Your task to perform on an android device: Clear all items from cart on bestbuy. Add "beats solo 3" to the cart on bestbuy, then select checkout. Image 0: 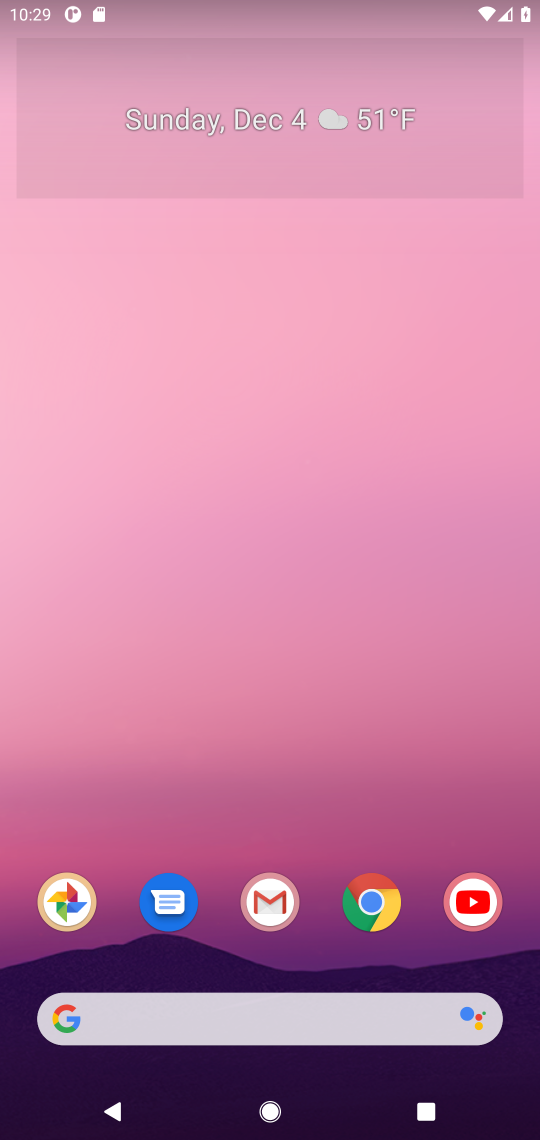
Step 0: click (365, 924)
Your task to perform on an android device: Clear all items from cart on bestbuy. Add "beats solo 3" to the cart on bestbuy, then select checkout. Image 1: 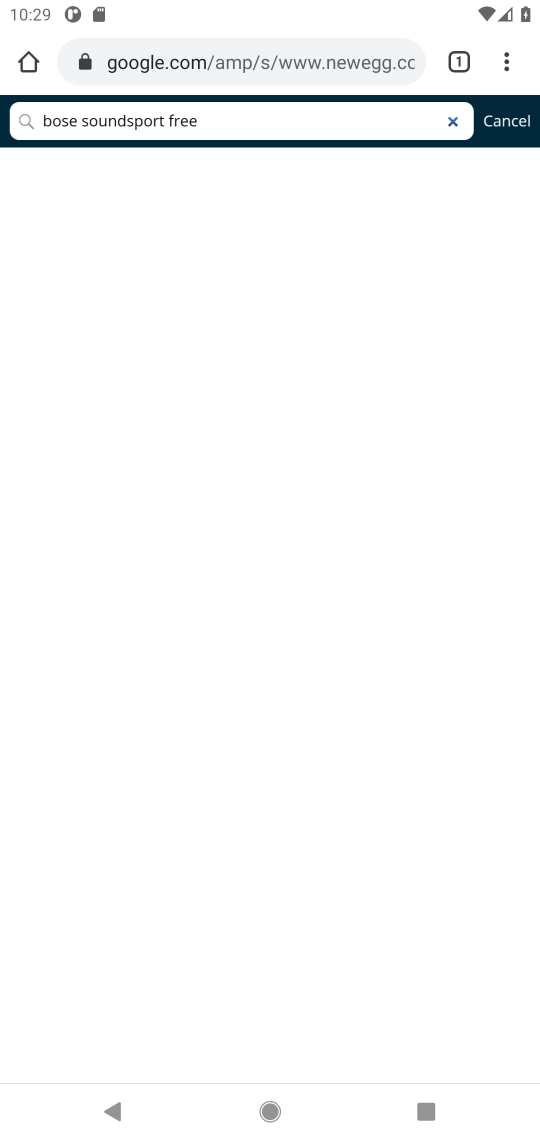
Step 1: click (313, 60)
Your task to perform on an android device: Clear all items from cart on bestbuy. Add "beats solo 3" to the cart on bestbuy, then select checkout. Image 2: 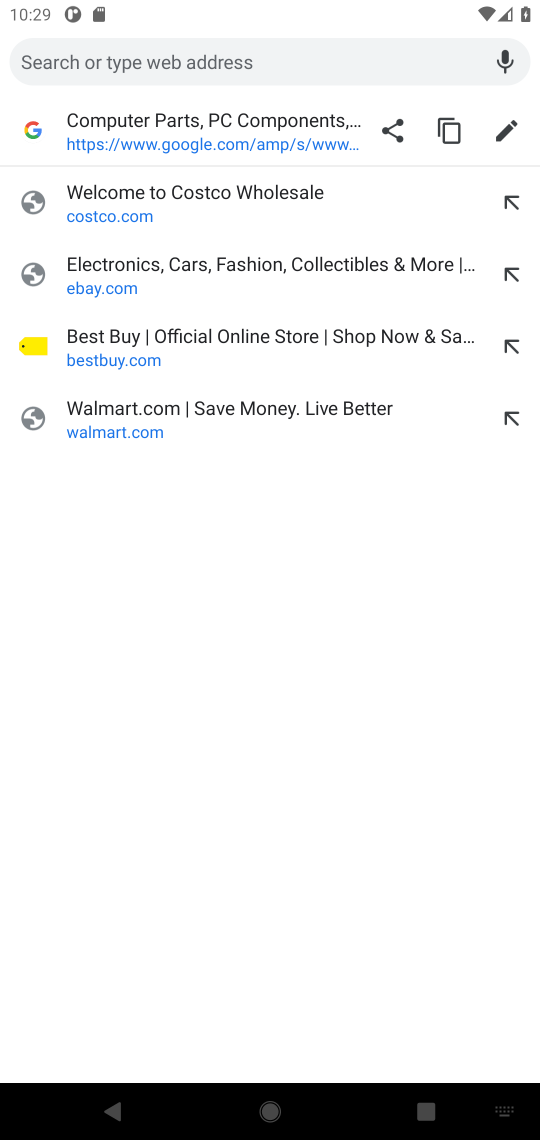
Step 2: click (203, 366)
Your task to perform on an android device: Clear all items from cart on bestbuy. Add "beats solo 3" to the cart on bestbuy, then select checkout. Image 3: 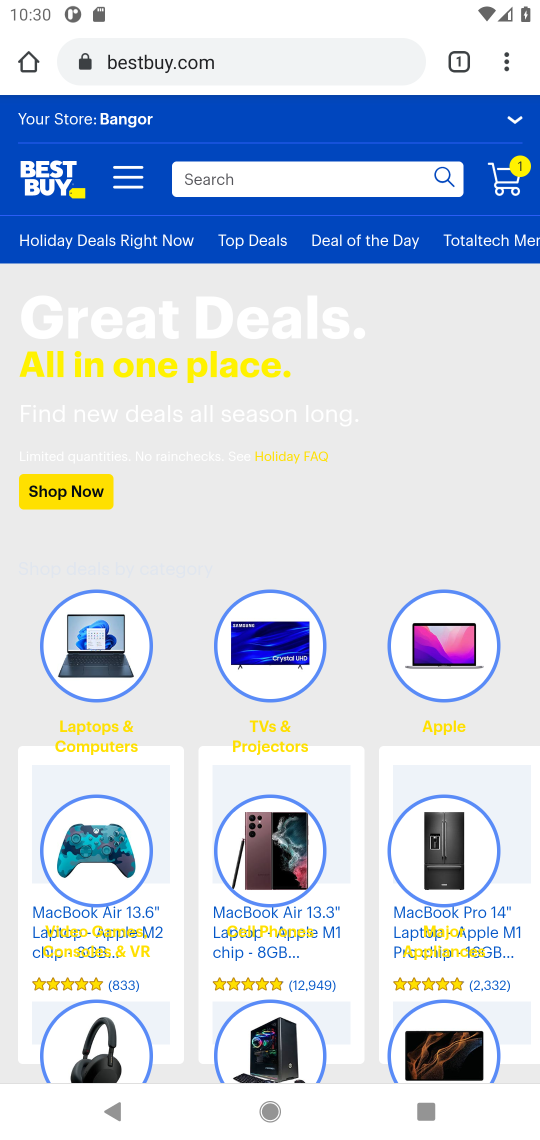
Step 3: click (499, 184)
Your task to perform on an android device: Clear all items from cart on bestbuy. Add "beats solo 3" to the cart on bestbuy, then select checkout. Image 4: 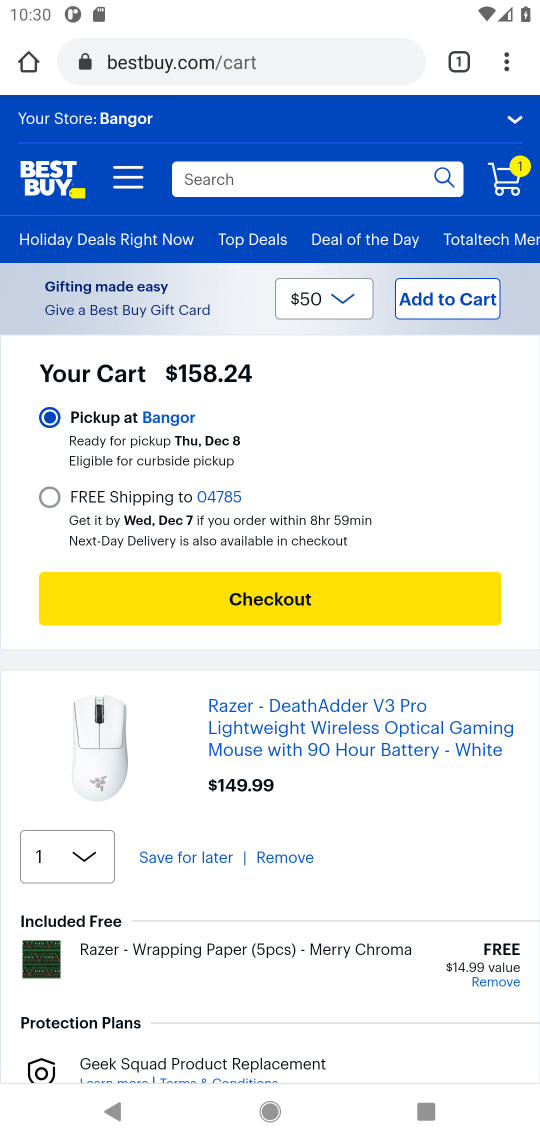
Step 4: click (286, 852)
Your task to perform on an android device: Clear all items from cart on bestbuy. Add "beats solo 3" to the cart on bestbuy, then select checkout. Image 5: 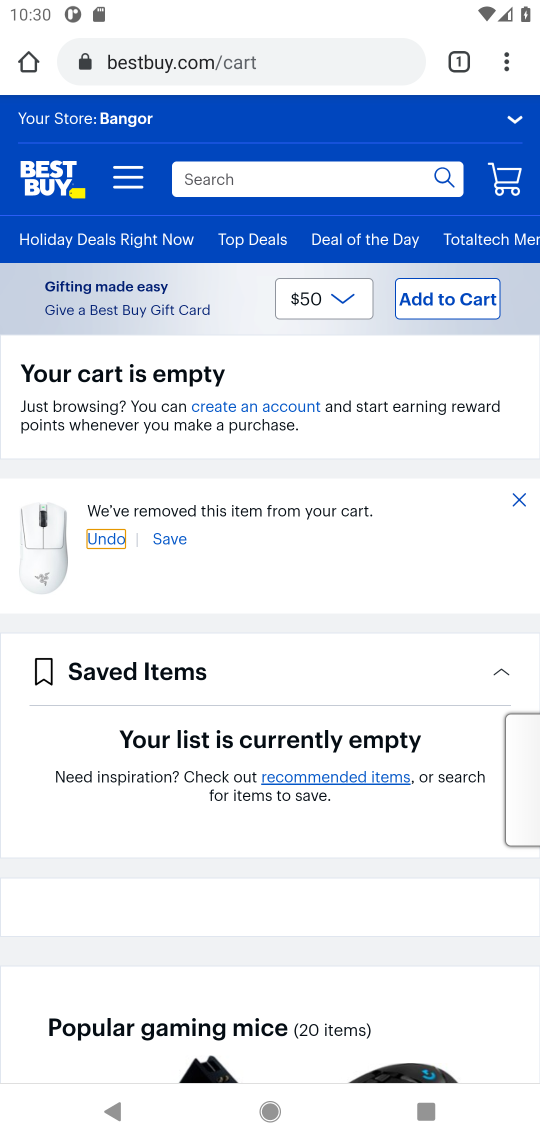
Step 5: click (363, 165)
Your task to perform on an android device: Clear all items from cart on bestbuy. Add "beats solo 3" to the cart on bestbuy, then select checkout. Image 6: 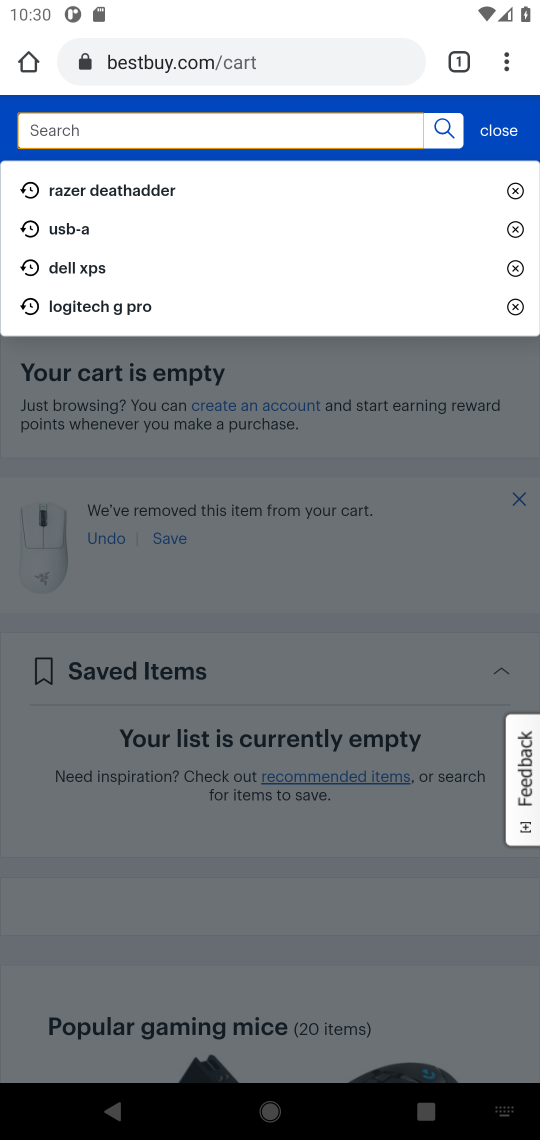
Step 6: type "beats solo 3"
Your task to perform on an android device: Clear all items from cart on bestbuy. Add "beats solo 3" to the cart on bestbuy, then select checkout. Image 7: 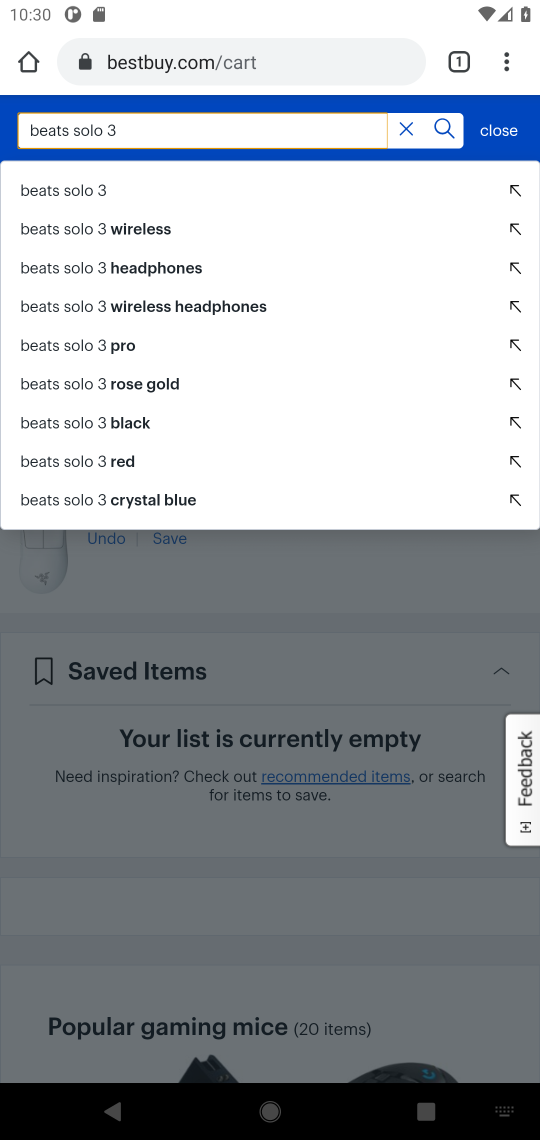
Step 7: click (448, 124)
Your task to perform on an android device: Clear all items from cart on bestbuy. Add "beats solo 3" to the cart on bestbuy, then select checkout. Image 8: 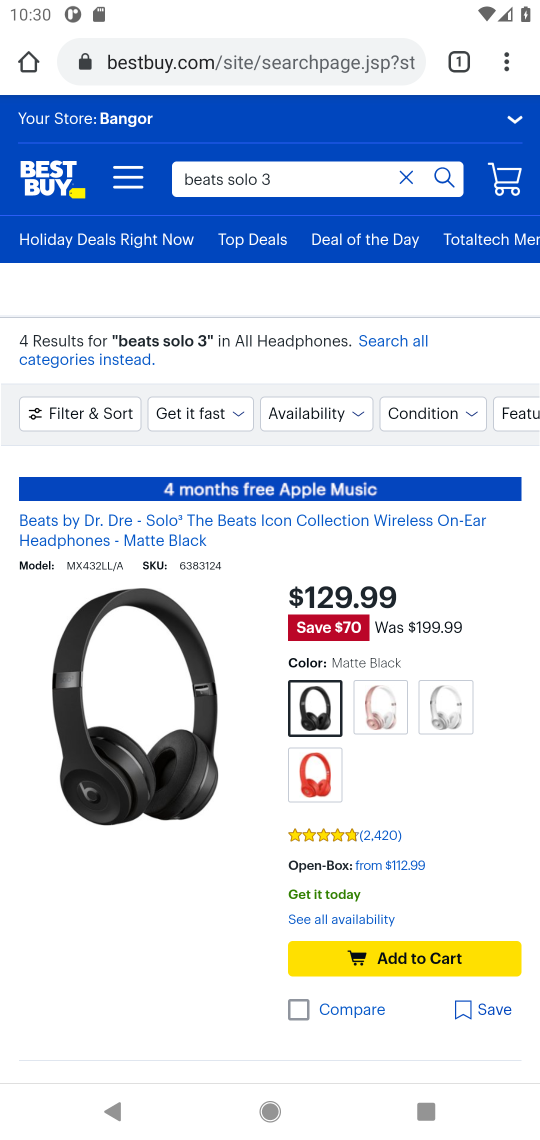
Step 8: click (424, 960)
Your task to perform on an android device: Clear all items from cart on bestbuy. Add "beats solo 3" to the cart on bestbuy, then select checkout. Image 9: 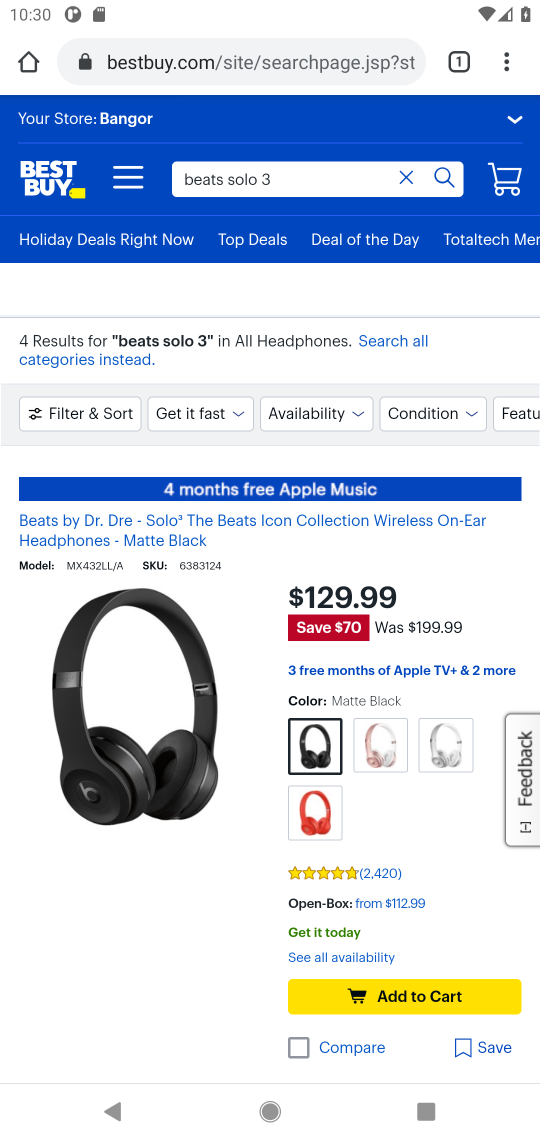
Step 9: click (417, 985)
Your task to perform on an android device: Clear all items from cart on bestbuy. Add "beats solo 3" to the cart on bestbuy, then select checkout. Image 10: 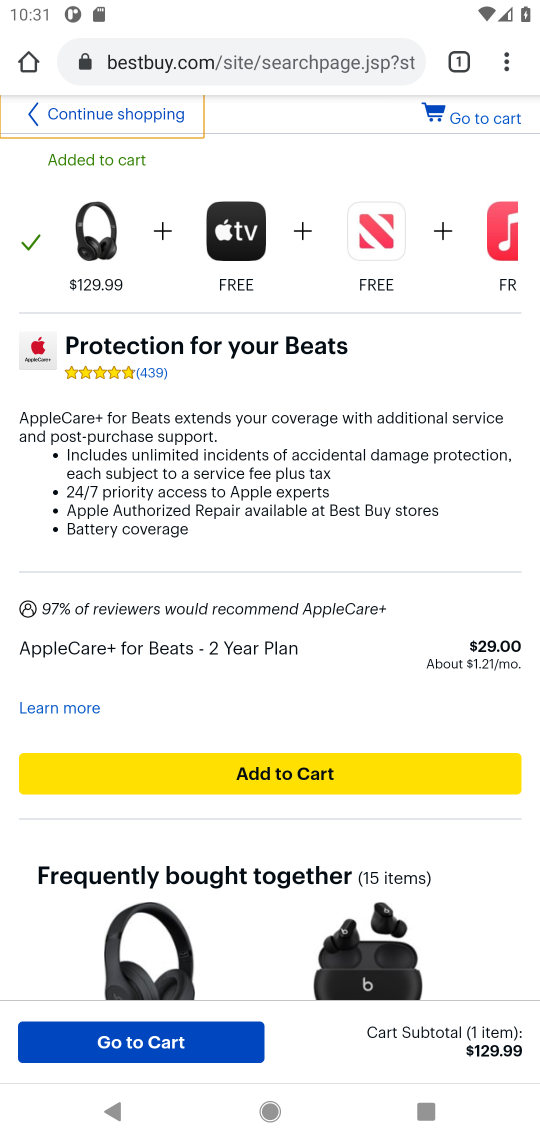
Step 10: click (498, 116)
Your task to perform on an android device: Clear all items from cart on bestbuy. Add "beats solo 3" to the cart on bestbuy, then select checkout. Image 11: 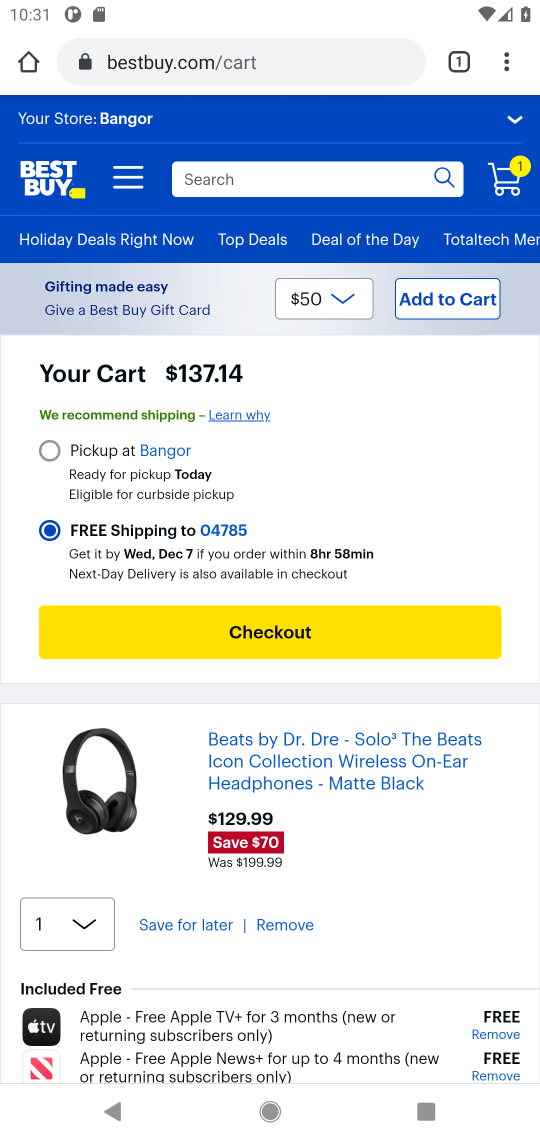
Step 11: click (238, 624)
Your task to perform on an android device: Clear all items from cart on bestbuy. Add "beats solo 3" to the cart on bestbuy, then select checkout. Image 12: 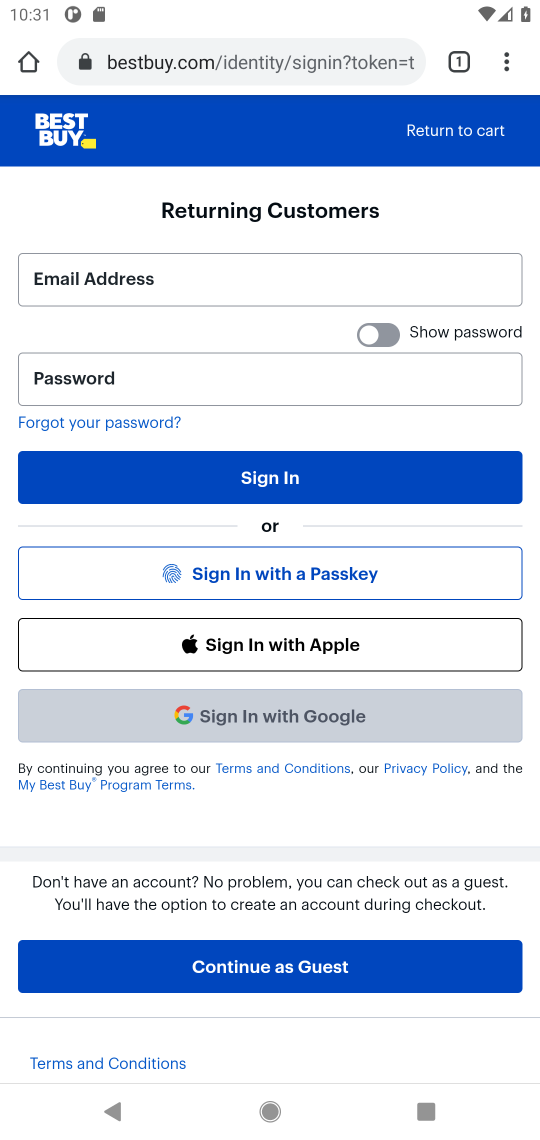
Step 12: task complete